Your task to perform on an android device: move a message to another label in the gmail app Image 0: 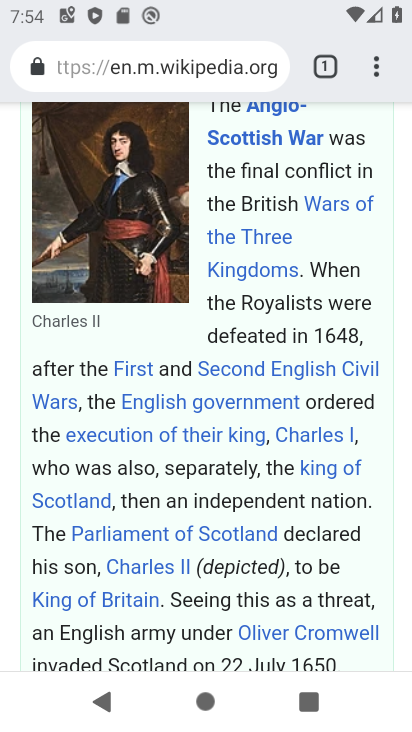
Step 0: press home button
Your task to perform on an android device: move a message to another label in the gmail app Image 1: 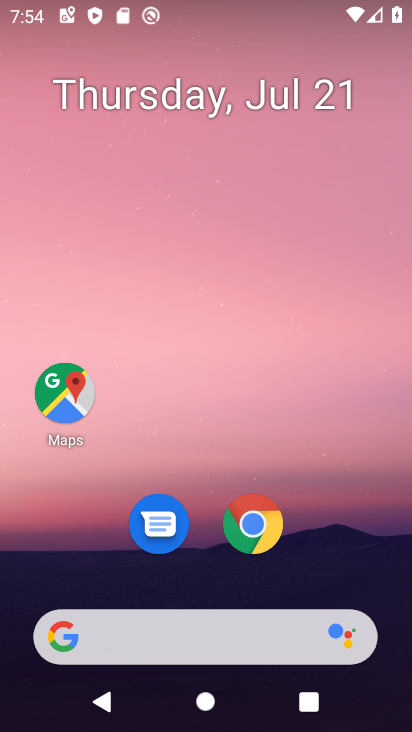
Step 1: drag from (220, 627) to (384, 98)
Your task to perform on an android device: move a message to another label in the gmail app Image 2: 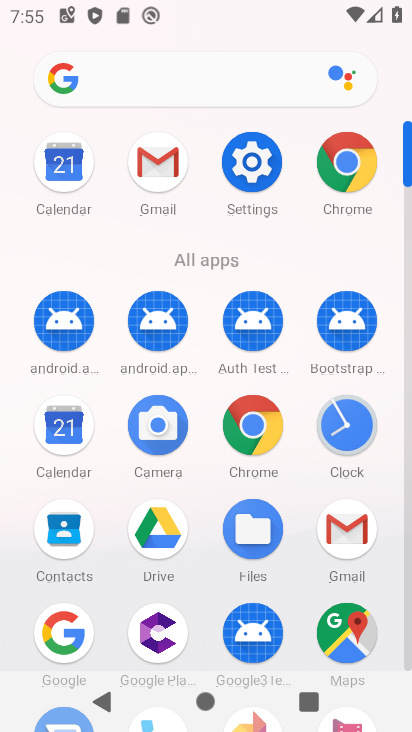
Step 2: click (151, 172)
Your task to perform on an android device: move a message to another label in the gmail app Image 3: 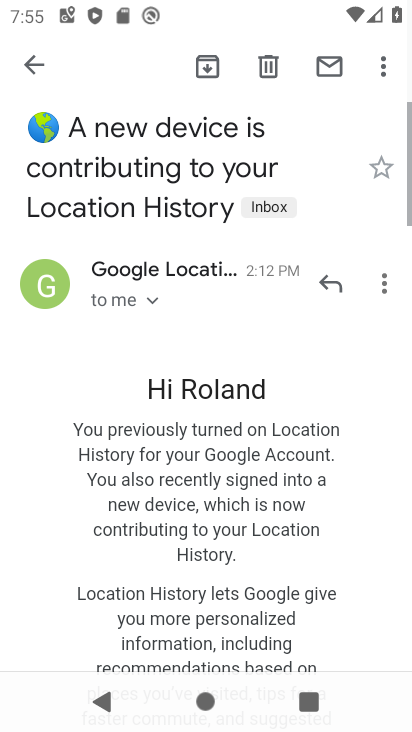
Step 3: click (39, 48)
Your task to perform on an android device: move a message to another label in the gmail app Image 4: 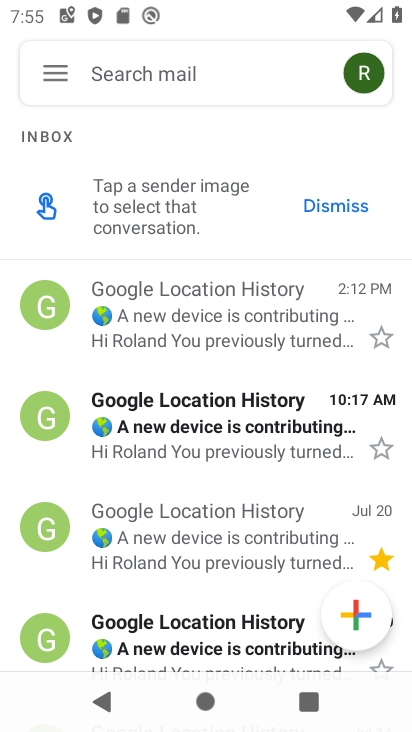
Step 4: click (185, 427)
Your task to perform on an android device: move a message to another label in the gmail app Image 5: 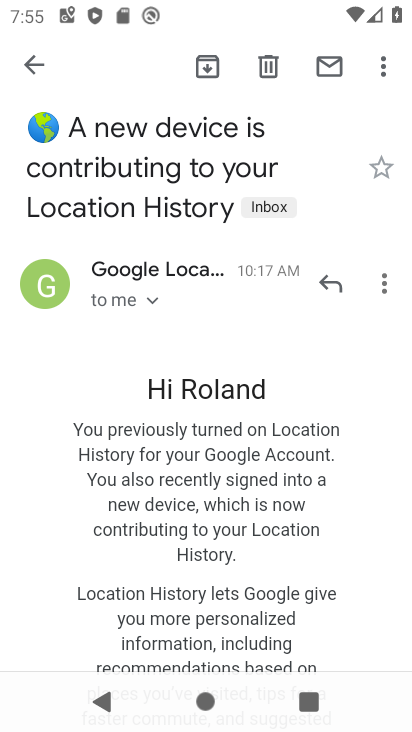
Step 5: click (276, 209)
Your task to perform on an android device: move a message to another label in the gmail app Image 6: 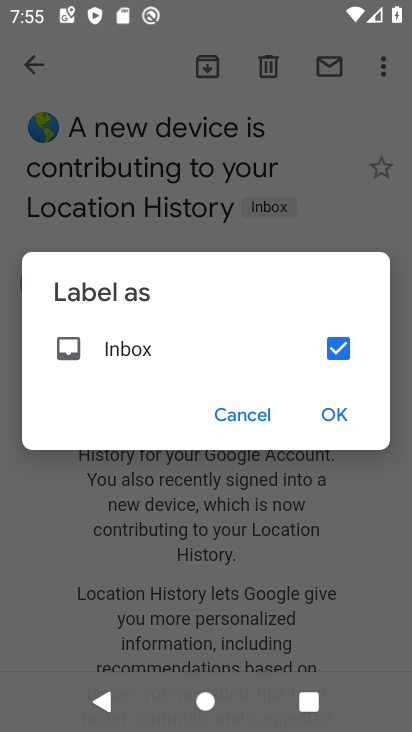
Step 6: click (339, 410)
Your task to perform on an android device: move a message to another label in the gmail app Image 7: 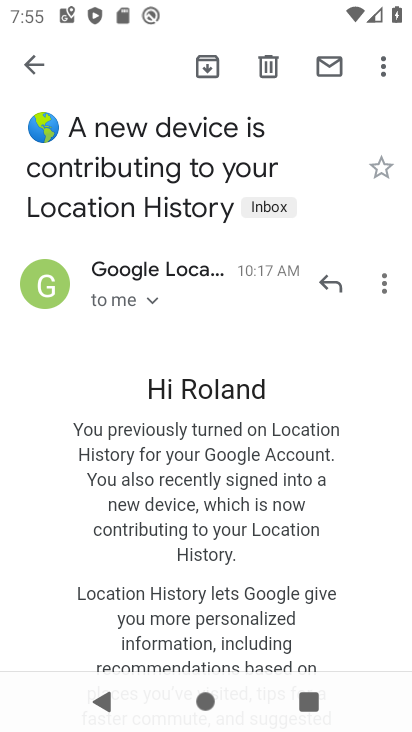
Step 7: task complete